Your task to perform on an android device: Go to privacy settings Image 0: 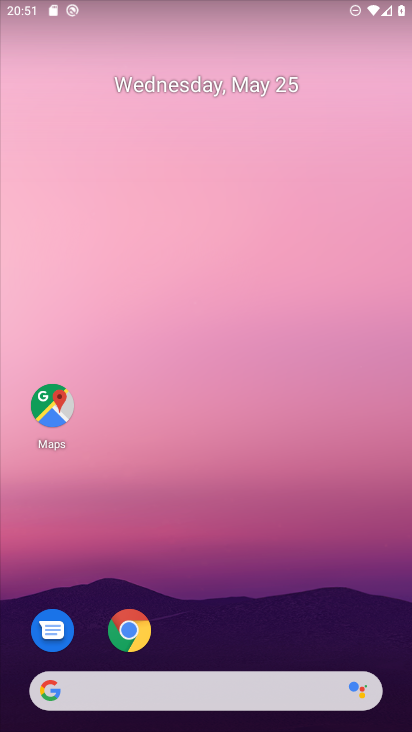
Step 0: click (130, 631)
Your task to perform on an android device: Go to privacy settings Image 1: 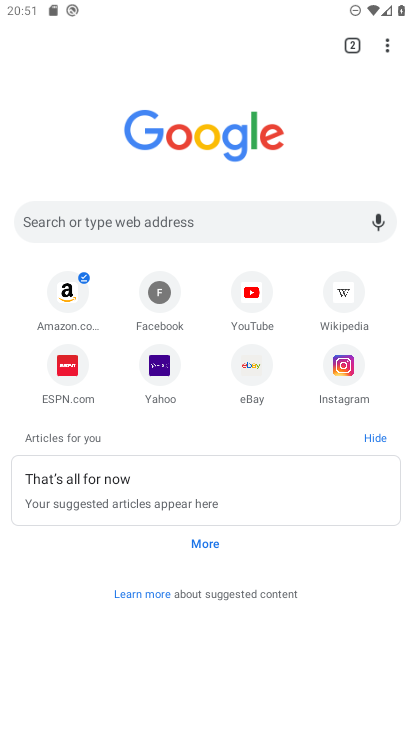
Step 1: click (383, 47)
Your task to perform on an android device: Go to privacy settings Image 2: 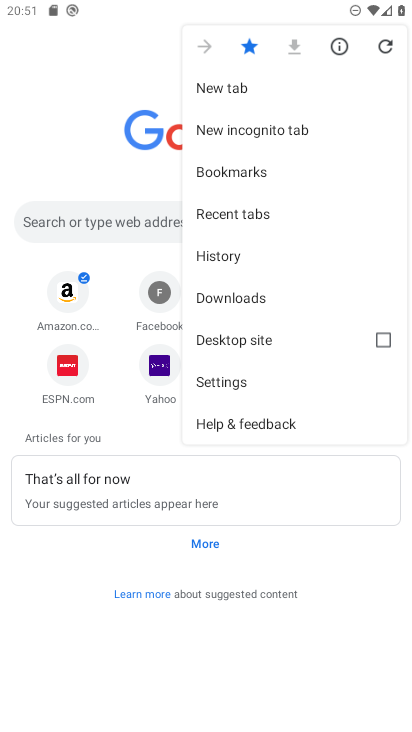
Step 2: click (233, 381)
Your task to perform on an android device: Go to privacy settings Image 3: 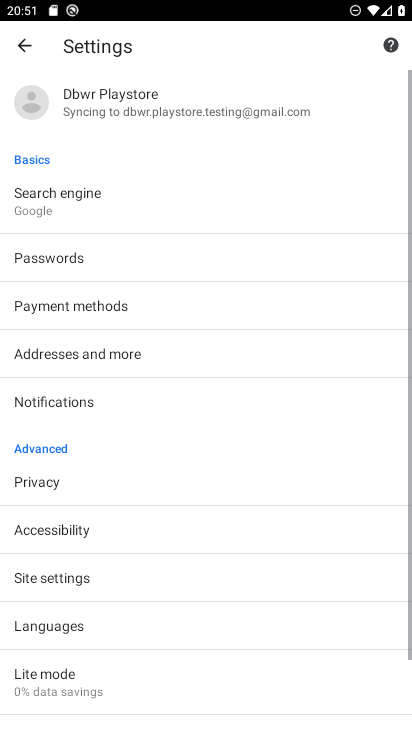
Step 3: click (82, 482)
Your task to perform on an android device: Go to privacy settings Image 4: 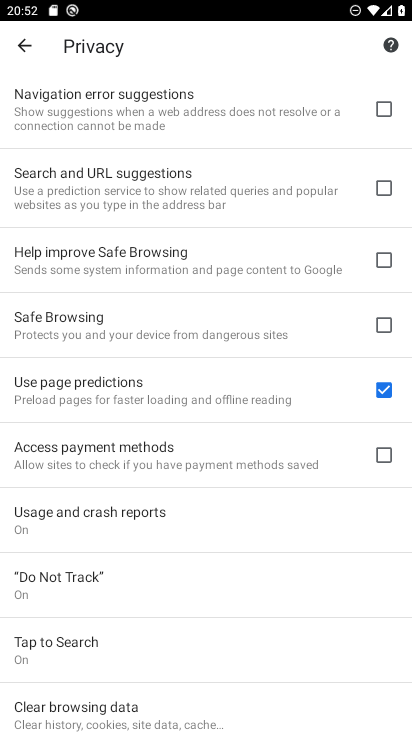
Step 4: task complete